Your task to perform on an android device: turn on the 12-hour format for clock Image 0: 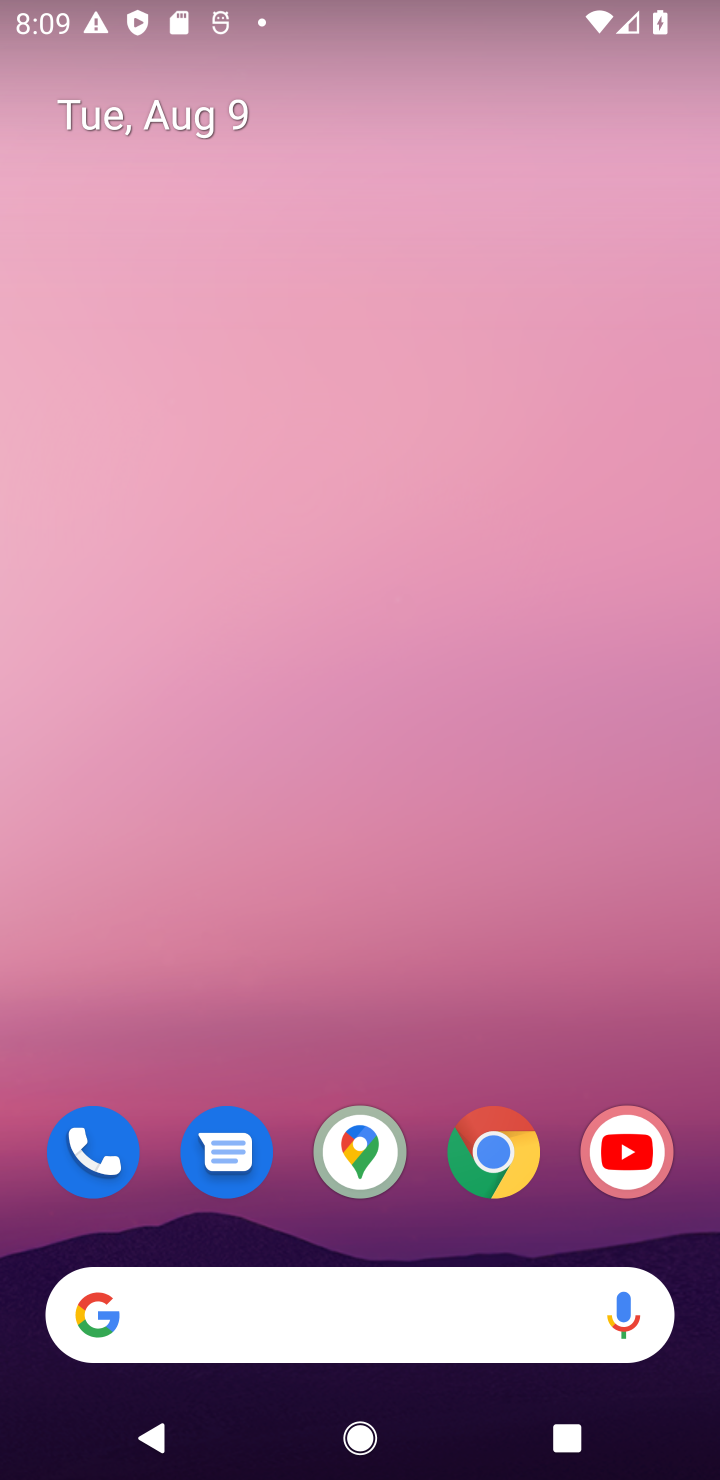
Step 0: drag from (378, 1028) to (375, 193)
Your task to perform on an android device: turn on the 12-hour format for clock Image 1: 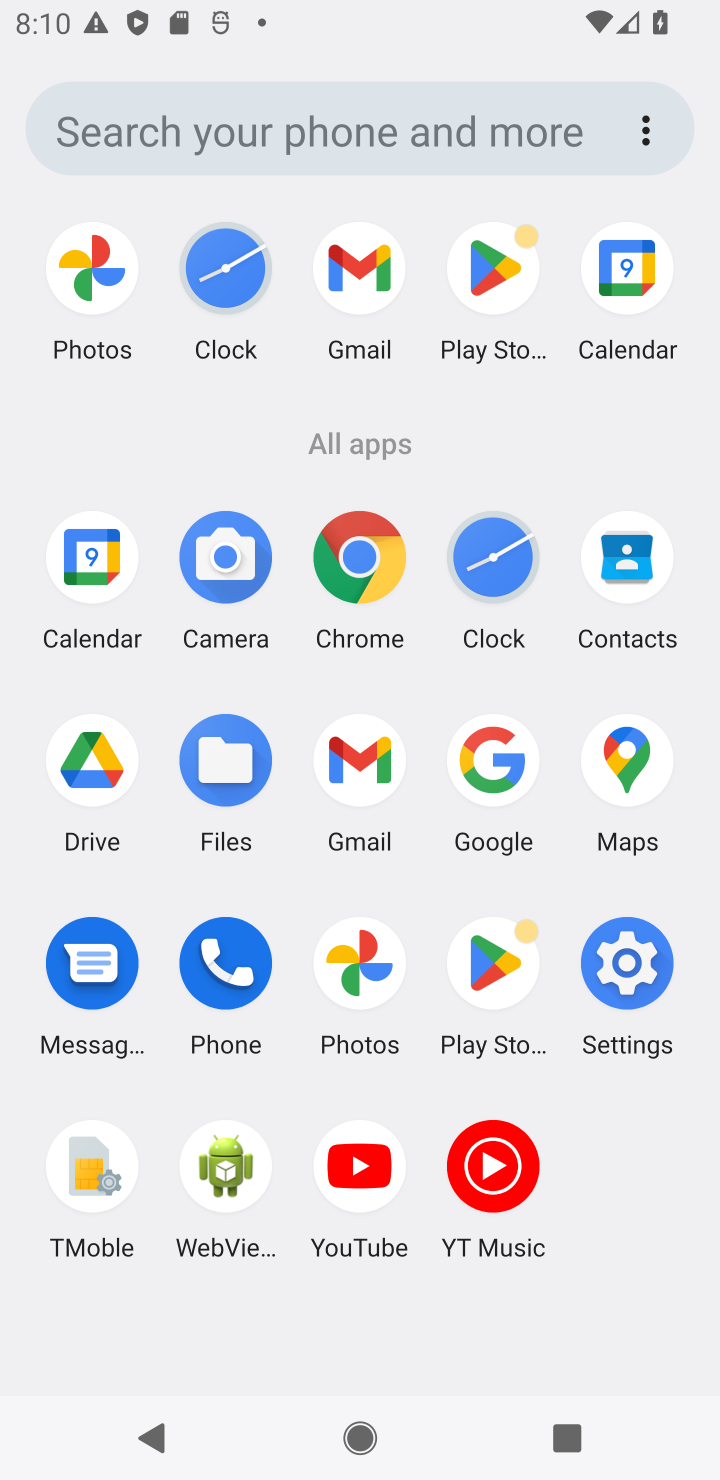
Step 1: click (242, 291)
Your task to perform on an android device: turn on the 12-hour format for clock Image 2: 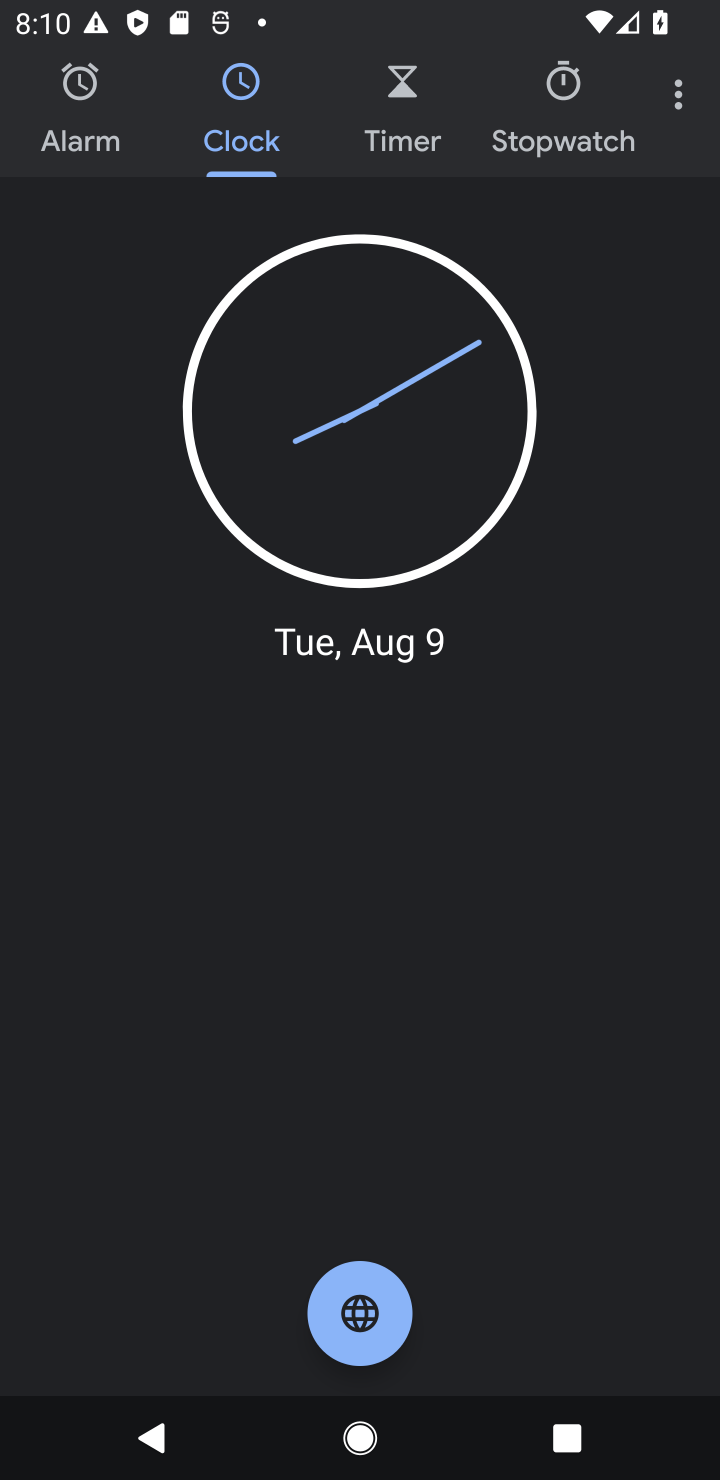
Step 2: click (703, 84)
Your task to perform on an android device: turn on the 12-hour format for clock Image 3: 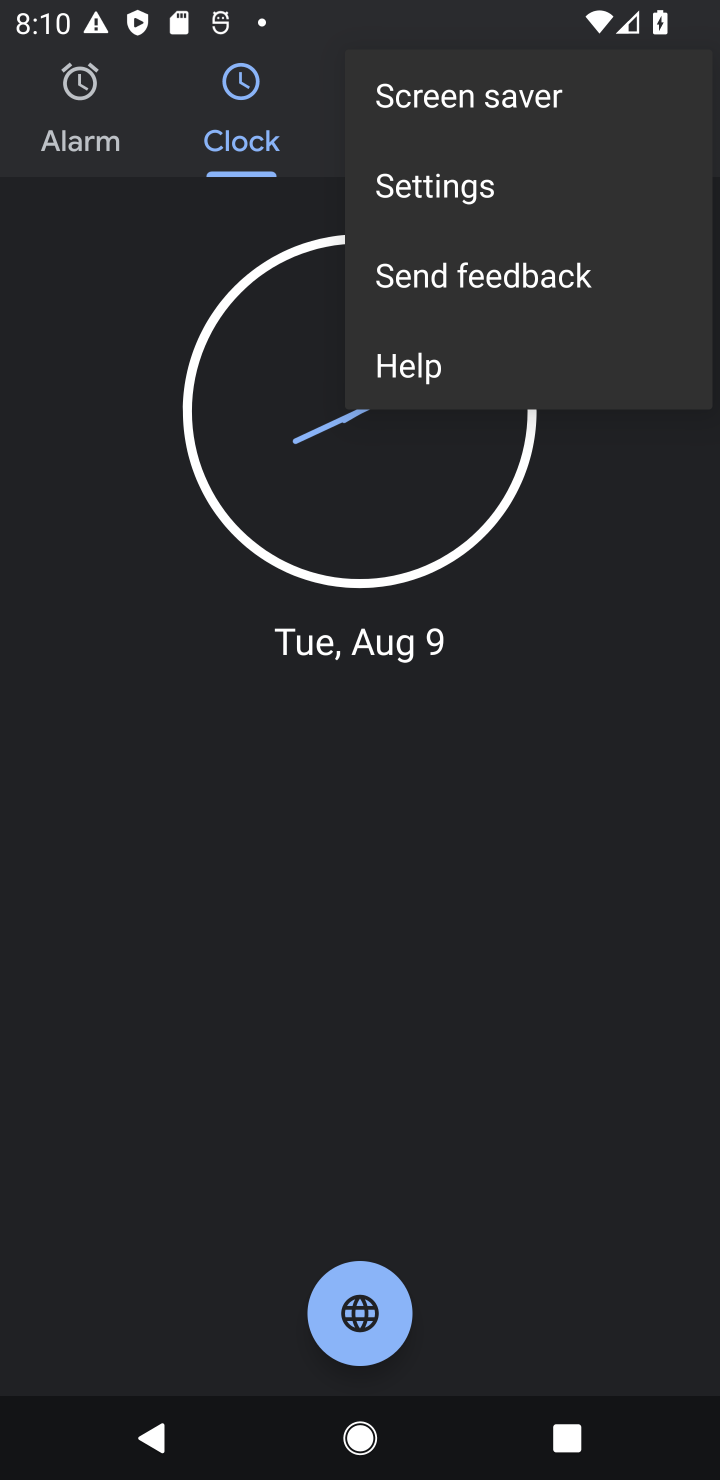
Step 3: click (510, 166)
Your task to perform on an android device: turn on the 12-hour format for clock Image 4: 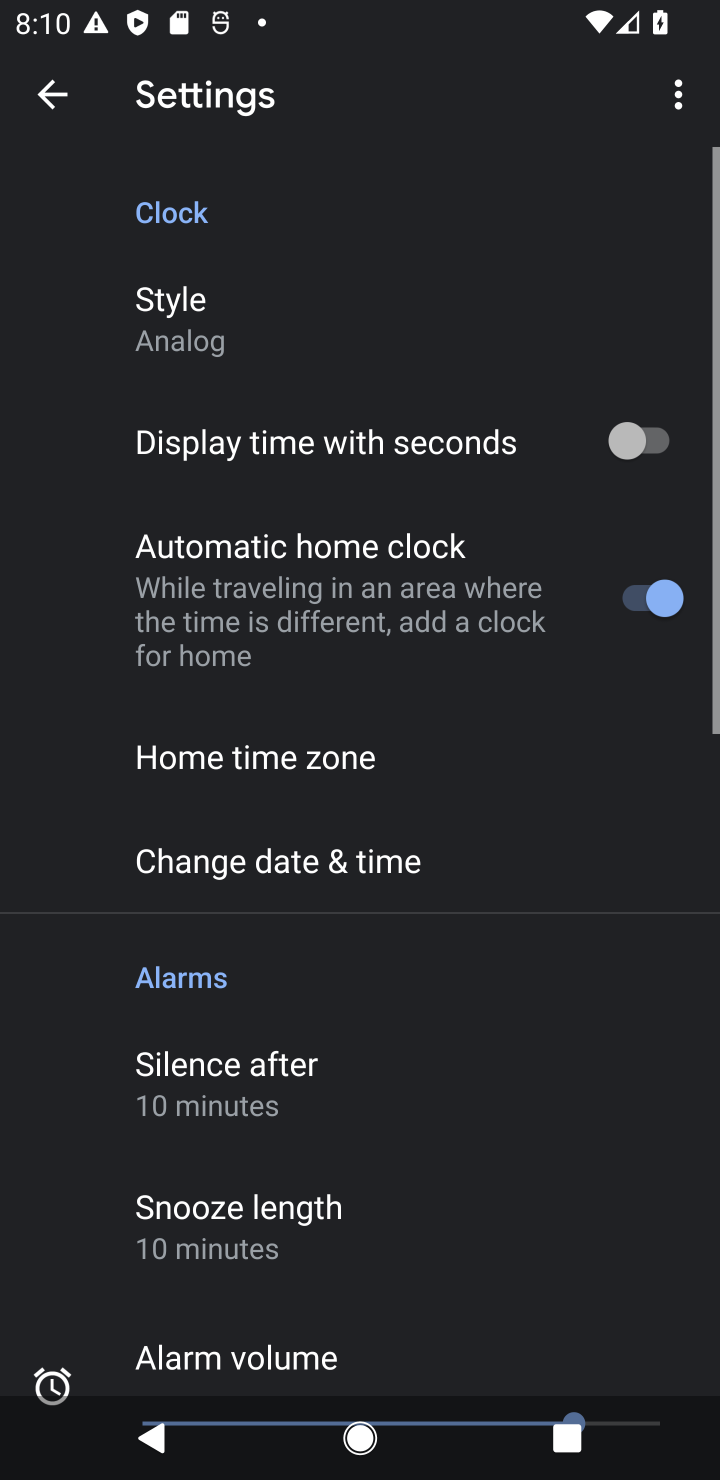
Step 4: click (519, 194)
Your task to perform on an android device: turn on the 12-hour format for clock Image 5: 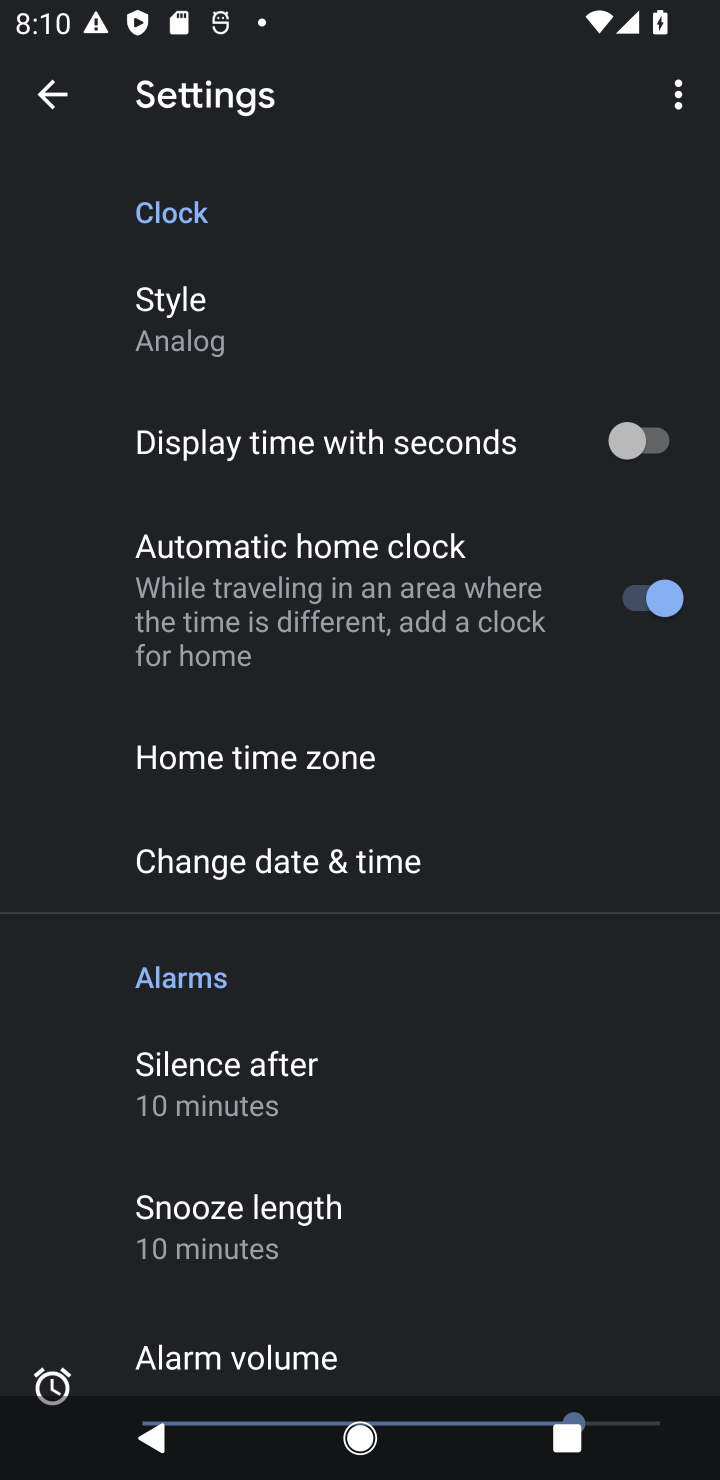
Step 5: task complete